Your task to perform on an android device: turn on the 12-hour format for clock Image 0: 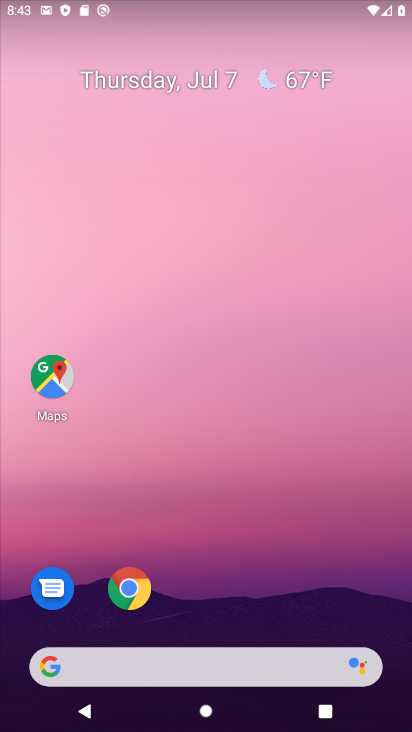
Step 0: drag from (244, 579) to (220, 45)
Your task to perform on an android device: turn on the 12-hour format for clock Image 1: 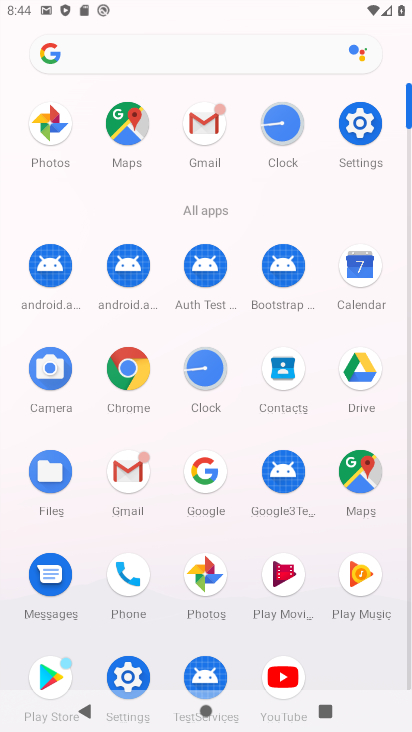
Step 1: click (208, 367)
Your task to perform on an android device: turn on the 12-hour format for clock Image 2: 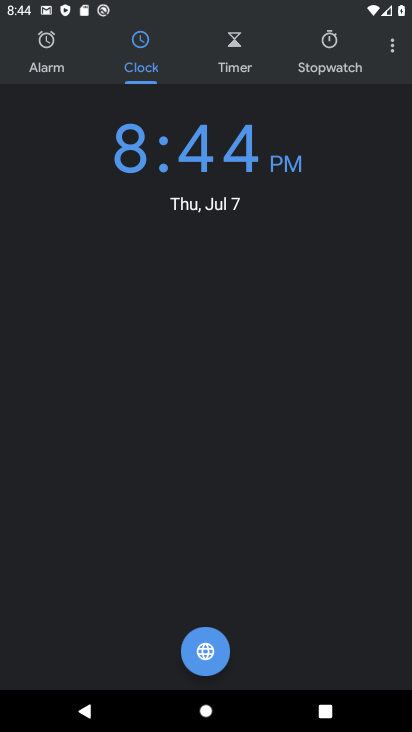
Step 2: click (397, 47)
Your task to perform on an android device: turn on the 12-hour format for clock Image 3: 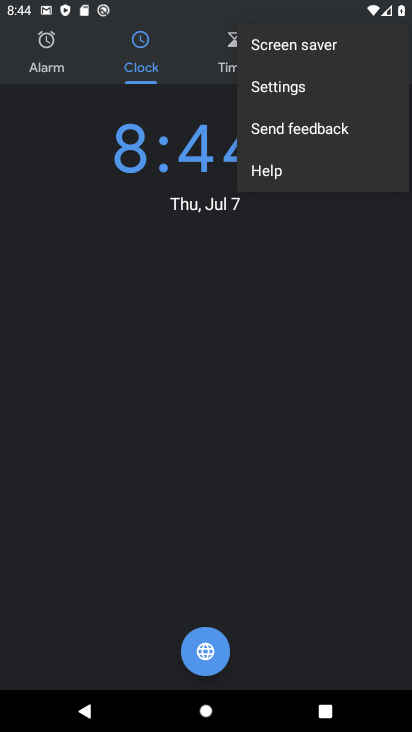
Step 3: click (298, 89)
Your task to perform on an android device: turn on the 12-hour format for clock Image 4: 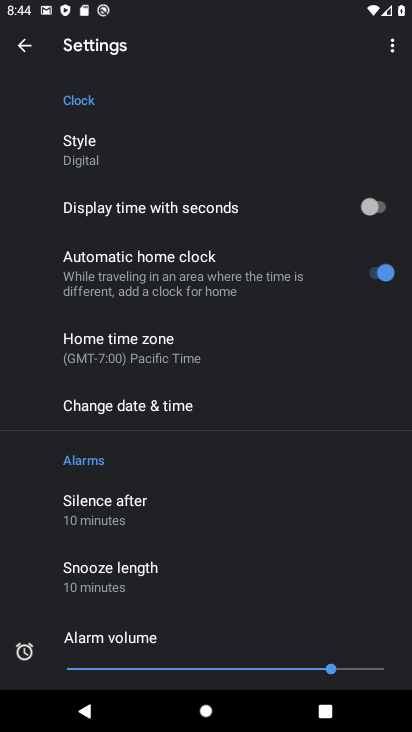
Step 4: click (160, 409)
Your task to perform on an android device: turn on the 12-hour format for clock Image 5: 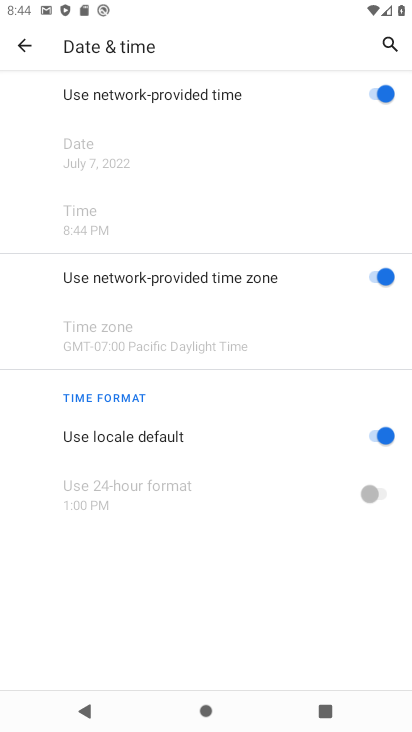
Step 5: task complete